Your task to perform on an android device: Show me the alarms in the clock app Image 0: 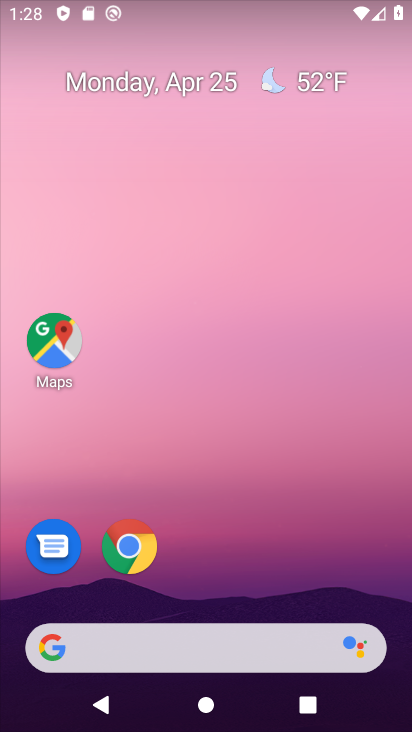
Step 0: drag from (174, 655) to (286, 6)
Your task to perform on an android device: Show me the alarms in the clock app Image 1: 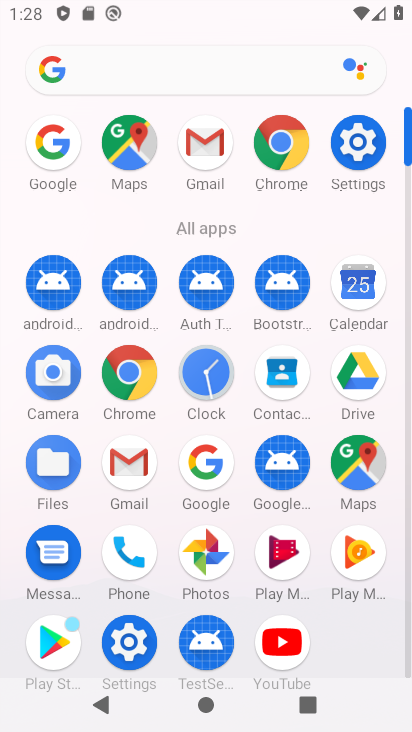
Step 1: click (212, 378)
Your task to perform on an android device: Show me the alarms in the clock app Image 2: 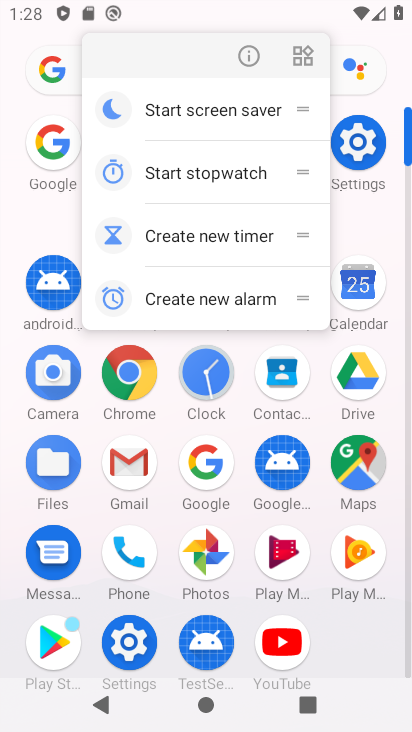
Step 2: click (204, 368)
Your task to perform on an android device: Show me the alarms in the clock app Image 3: 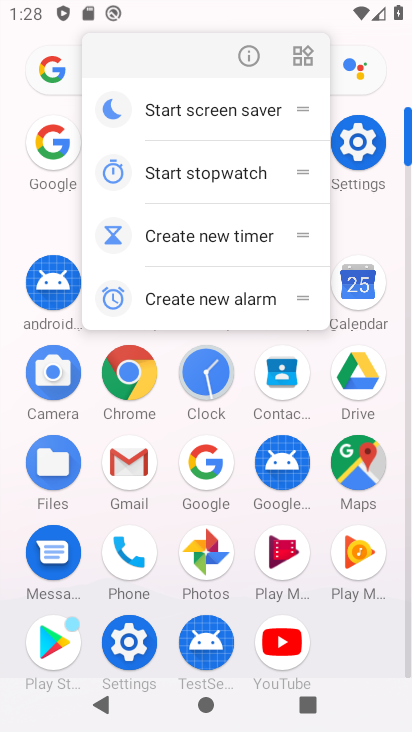
Step 3: click (199, 391)
Your task to perform on an android device: Show me the alarms in the clock app Image 4: 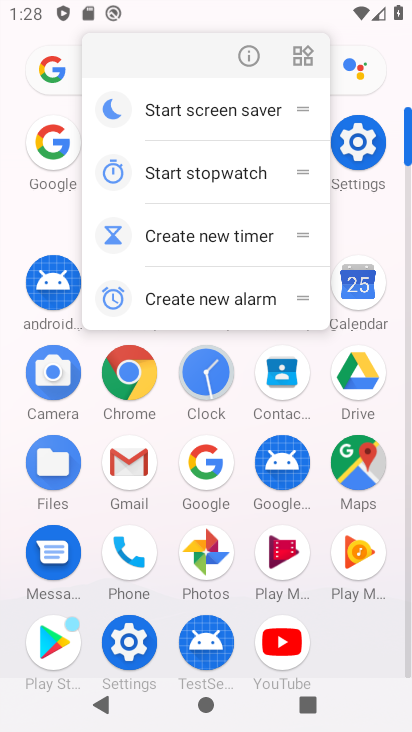
Step 4: click (199, 391)
Your task to perform on an android device: Show me the alarms in the clock app Image 5: 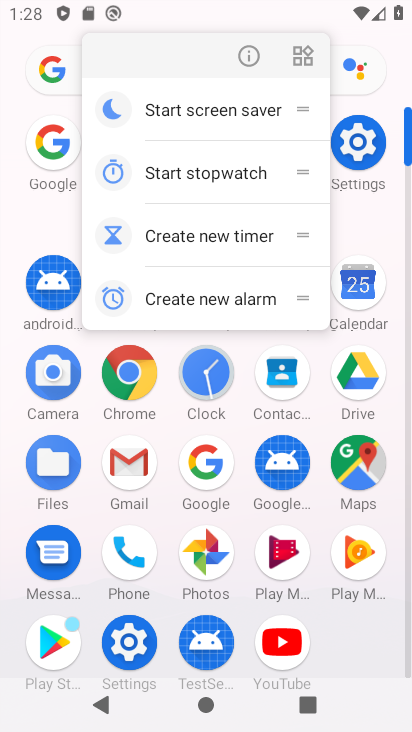
Step 5: click (199, 391)
Your task to perform on an android device: Show me the alarms in the clock app Image 6: 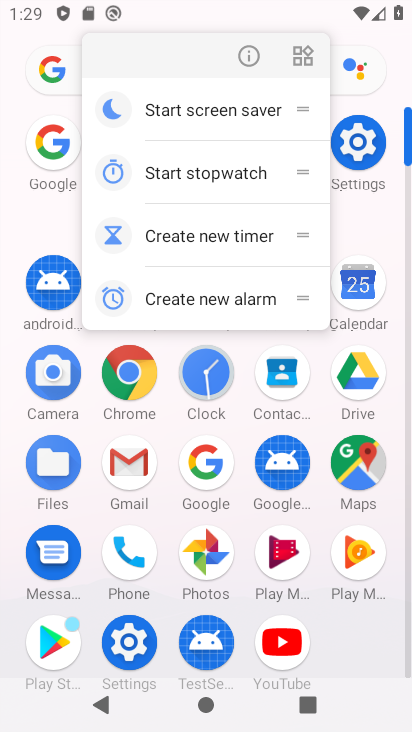
Step 6: click (199, 391)
Your task to perform on an android device: Show me the alarms in the clock app Image 7: 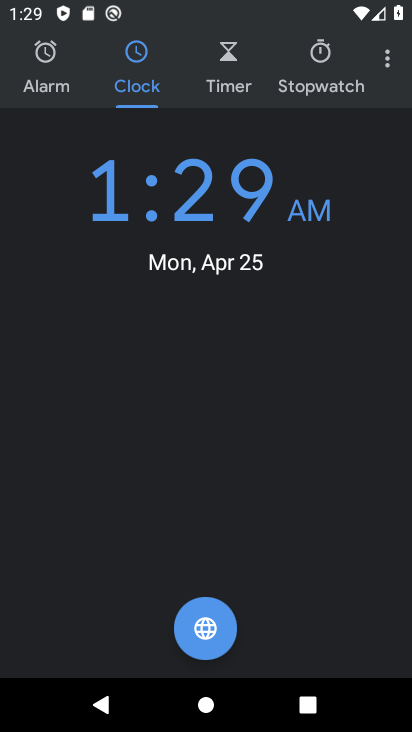
Step 7: click (42, 84)
Your task to perform on an android device: Show me the alarms in the clock app Image 8: 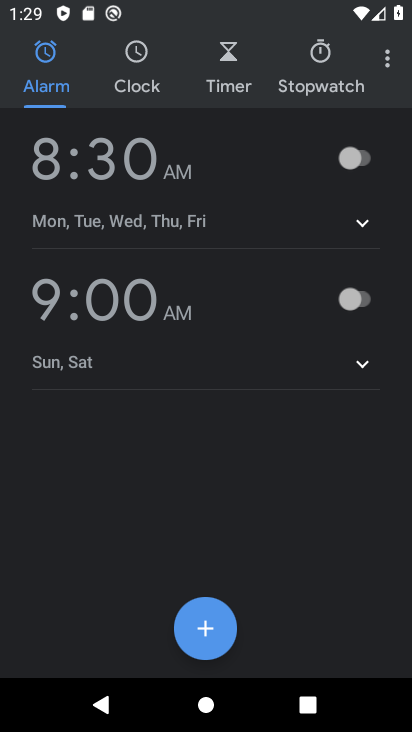
Step 8: task complete